Your task to perform on an android device: toggle location history Image 0: 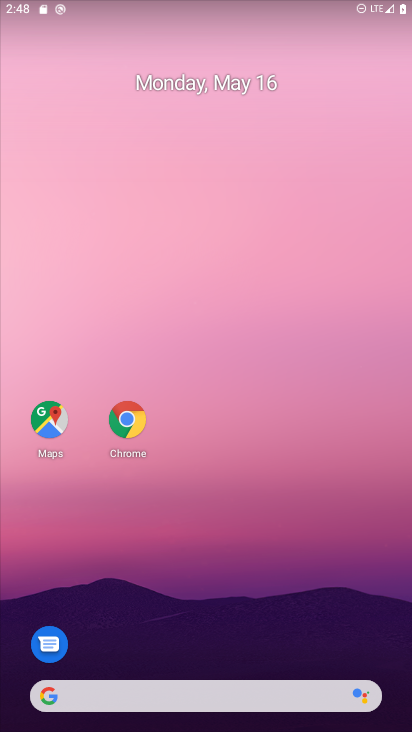
Step 0: drag from (190, 618) to (246, 160)
Your task to perform on an android device: toggle location history Image 1: 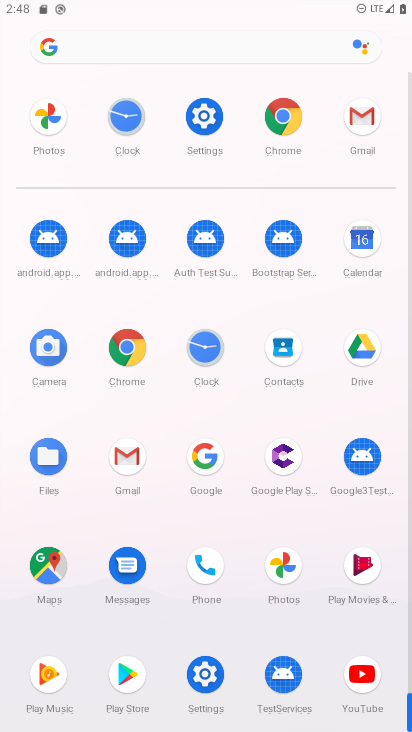
Step 1: click (199, 120)
Your task to perform on an android device: toggle location history Image 2: 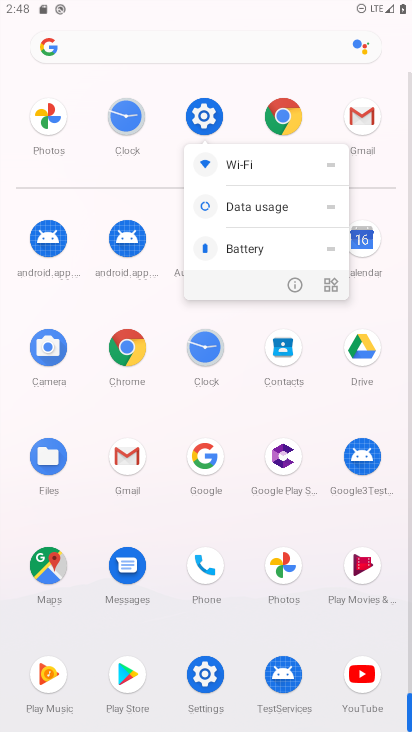
Step 2: click (294, 289)
Your task to perform on an android device: toggle location history Image 3: 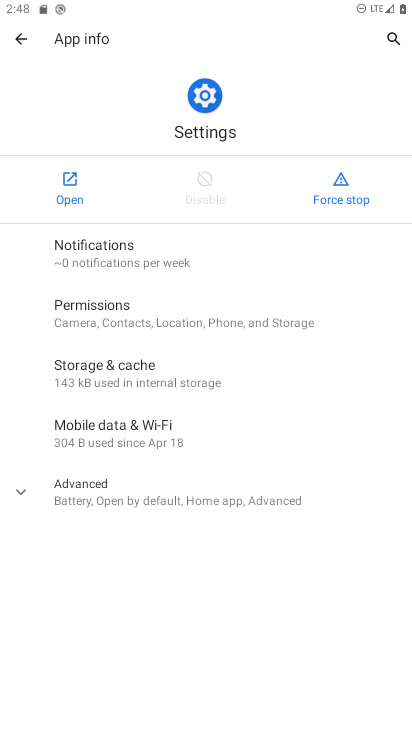
Step 3: click (61, 196)
Your task to perform on an android device: toggle location history Image 4: 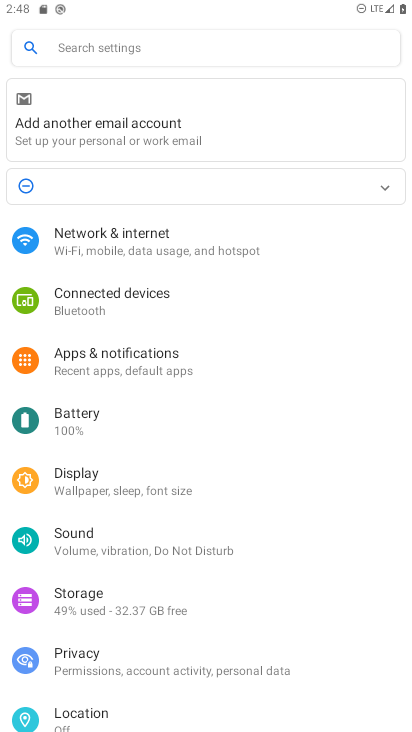
Step 4: drag from (145, 624) to (253, 167)
Your task to perform on an android device: toggle location history Image 5: 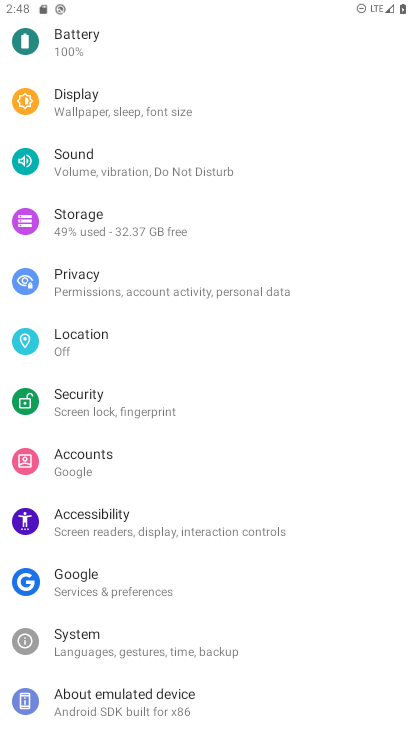
Step 5: click (102, 349)
Your task to perform on an android device: toggle location history Image 6: 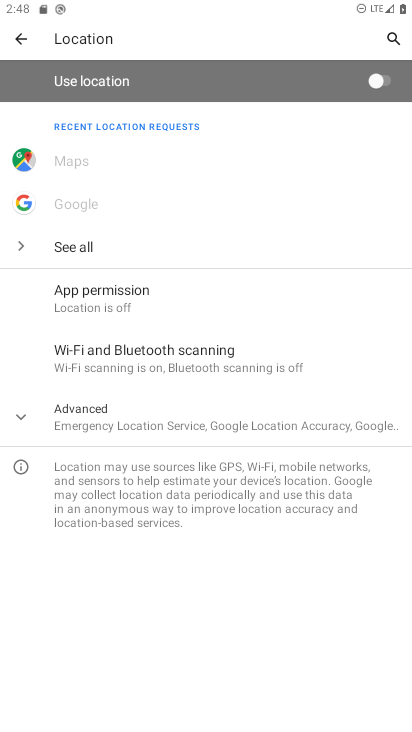
Step 6: click (113, 438)
Your task to perform on an android device: toggle location history Image 7: 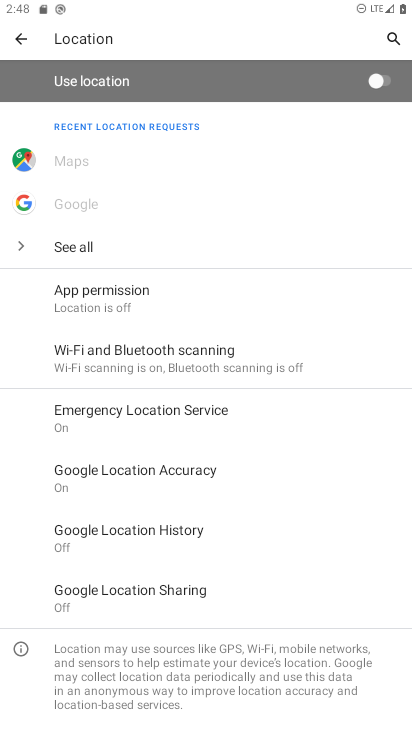
Step 7: click (196, 524)
Your task to perform on an android device: toggle location history Image 8: 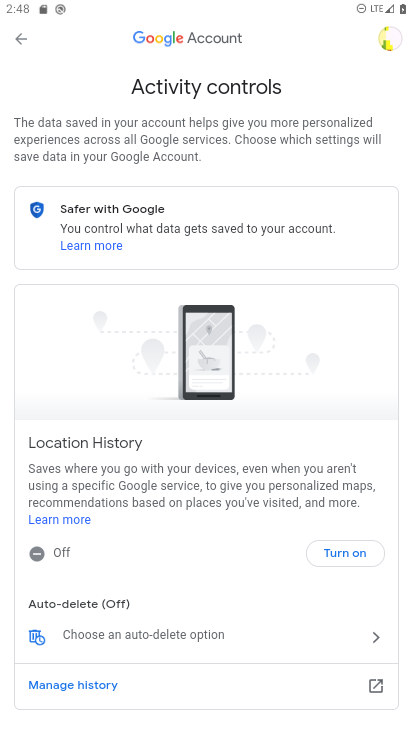
Step 8: click (344, 548)
Your task to perform on an android device: toggle location history Image 9: 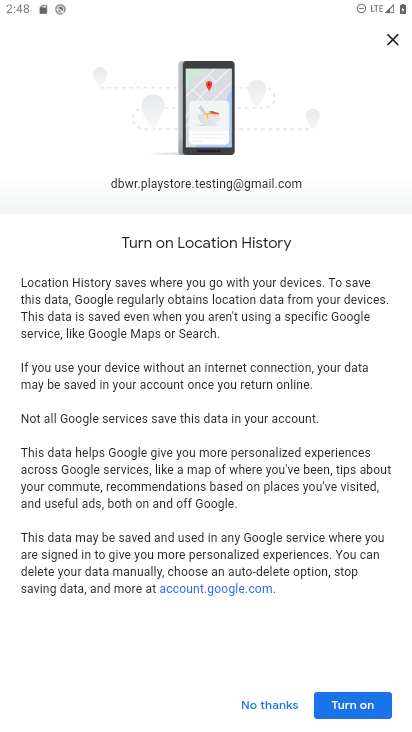
Step 9: click (354, 708)
Your task to perform on an android device: toggle location history Image 10: 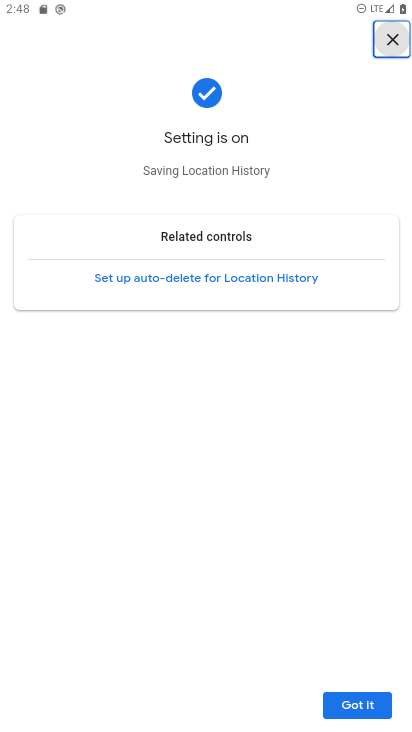
Step 10: click (373, 705)
Your task to perform on an android device: toggle location history Image 11: 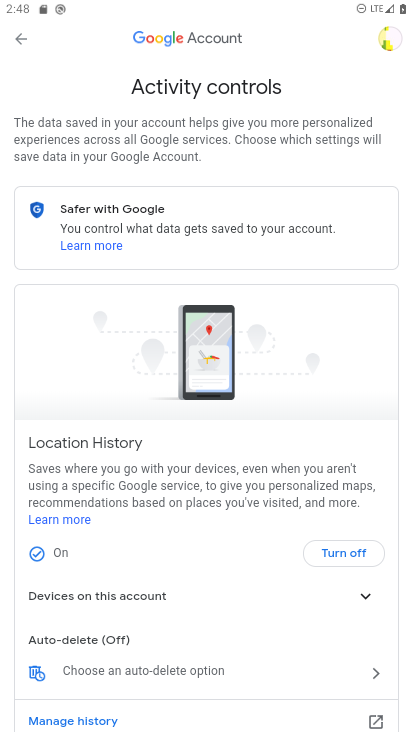
Step 11: task complete